Your task to perform on an android device: Open sound settings Image 0: 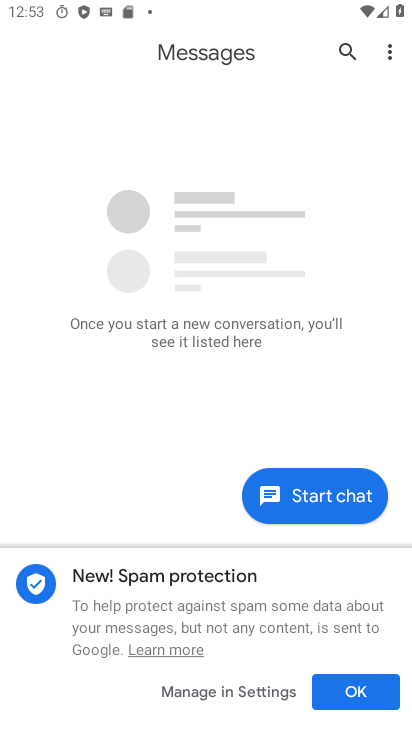
Step 0: press home button
Your task to perform on an android device: Open sound settings Image 1: 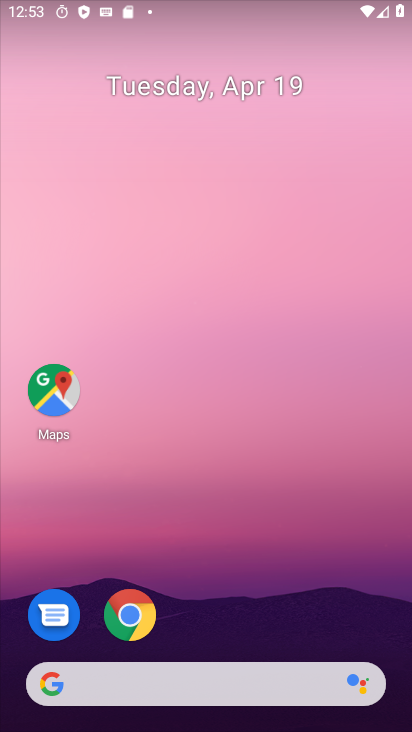
Step 1: drag from (380, 616) to (383, 87)
Your task to perform on an android device: Open sound settings Image 2: 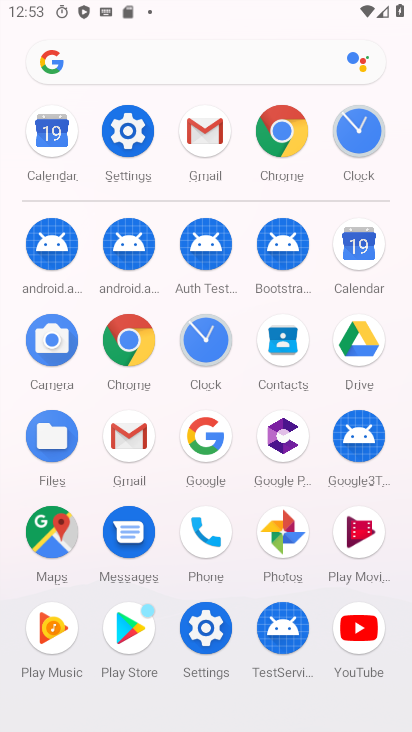
Step 2: click (135, 140)
Your task to perform on an android device: Open sound settings Image 3: 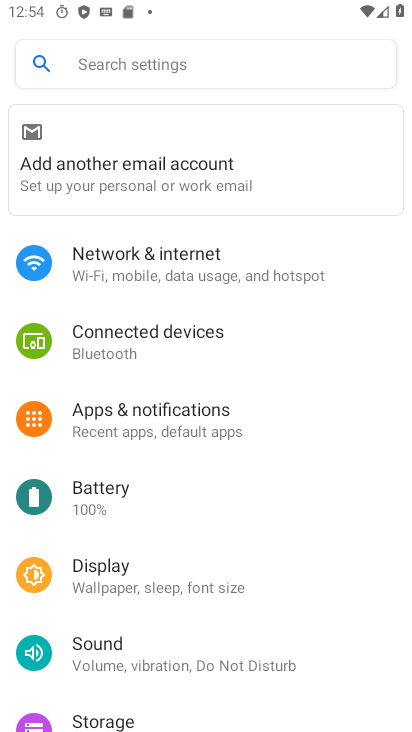
Step 3: drag from (361, 545) to (364, 352)
Your task to perform on an android device: Open sound settings Image 4: 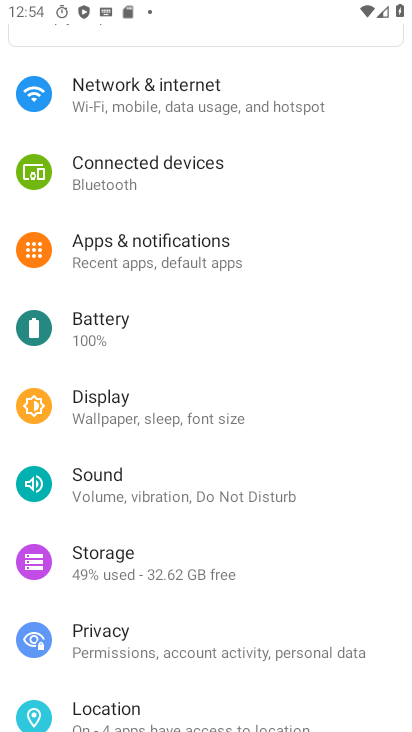
Step 4: drag from (349, 571) to (359, 300)
Your task to perform on an android device: Open sound settings Image 5: 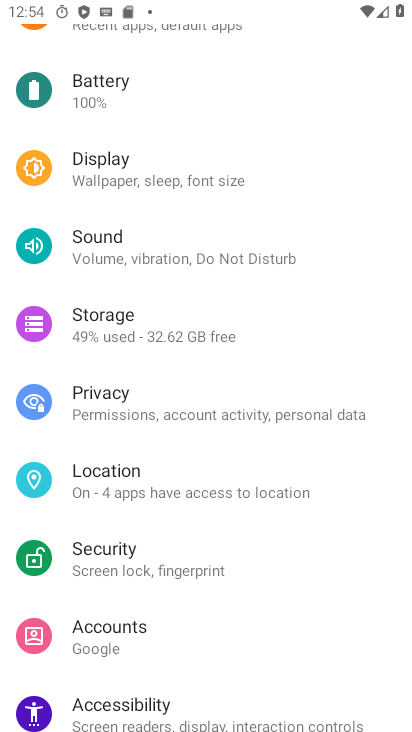
Step 5: click (183, 252)
Your task to perform on an android device: Open sound settings Image 6: 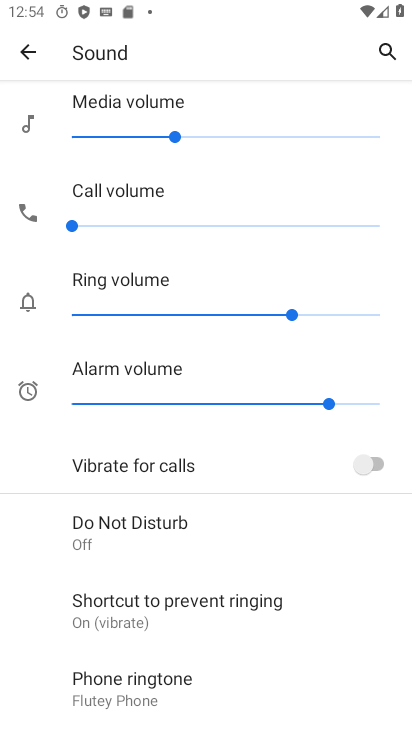
Step 6: task complete